Your task to perform on an android device: Search for pizza restaurants on Maps Image 0: 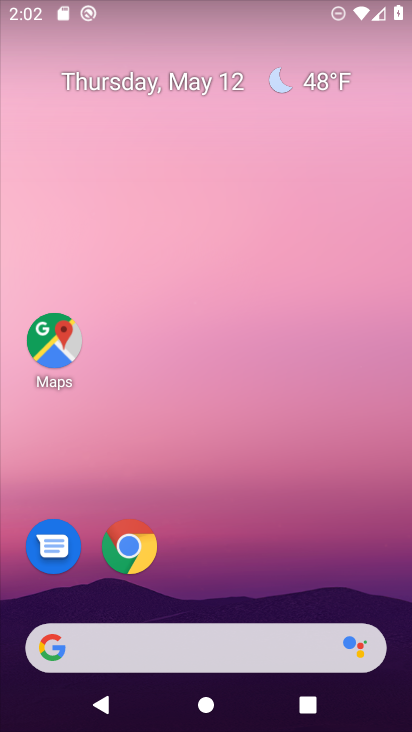
Step 0: drag from (325, 676) to (269, 167)
Your task to perform on an android device: Search for pizza restaurants on Maps Image 1: 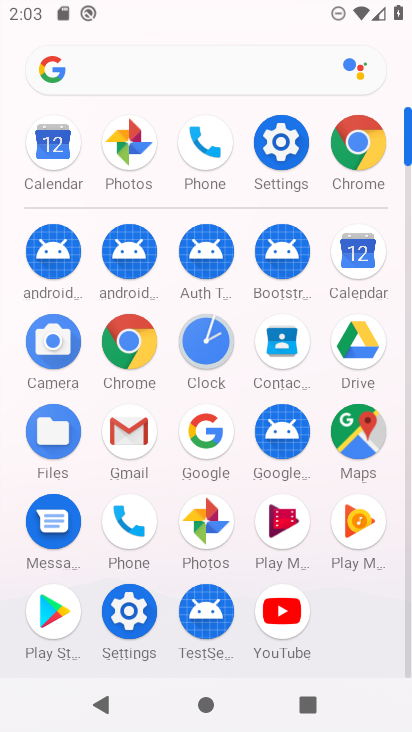
Step 1: click (381, 439)
Your task to perform on an android device: Search for pizza restaurants on Maps Image 2: 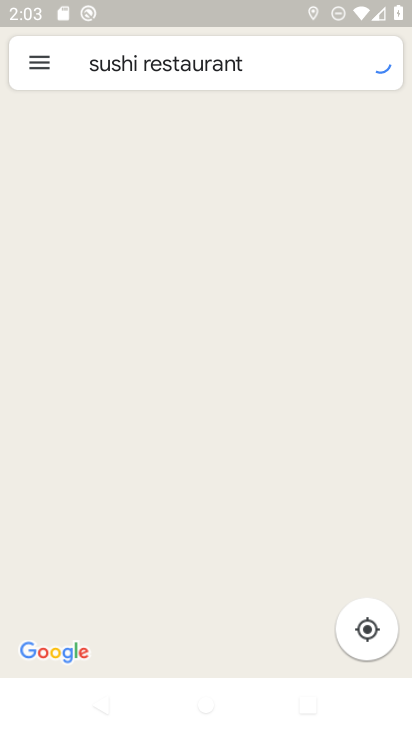
Step 2: click (308, 79)
Your task to perform on an android device: Search for pizza restaurants on Maps Image 3: 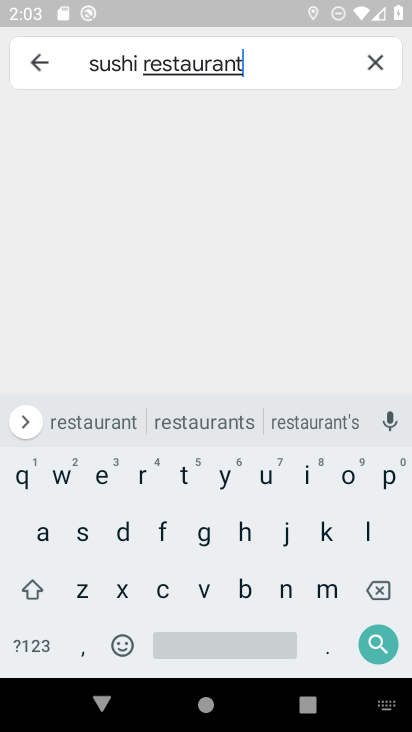
Step 3: click (374, 64)
Your task to perform on an android device: Search for pizza restaurants on Maps Image 4: 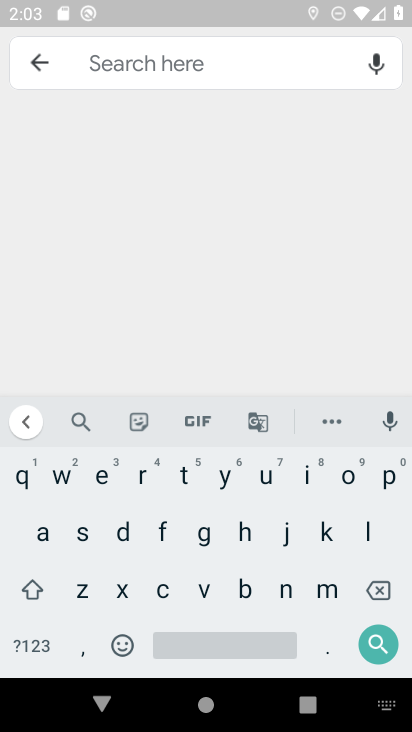
Step 4: click (36, 63)
Your task to perform on an android device: Search for pizza restaurants on Maps Image 5: 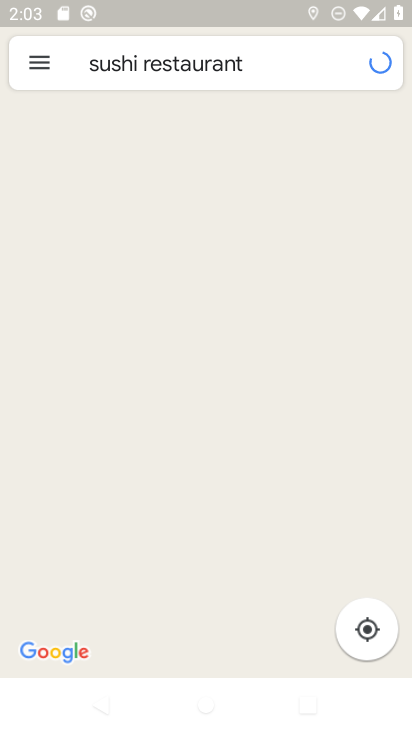
Step 5: click (46, 62)
Your task to perform on an android device: Search for pizza restaurants on Maps Image 6: 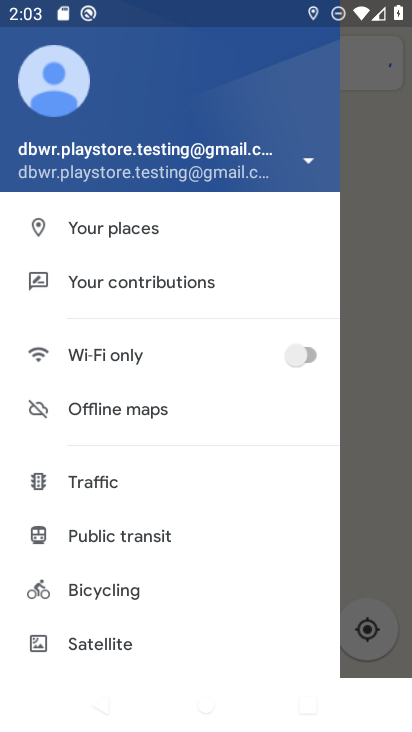
Step 6: click (376, 317)
Your task to perform on an android device: Search for pizza restaurants on Maps Image 7: 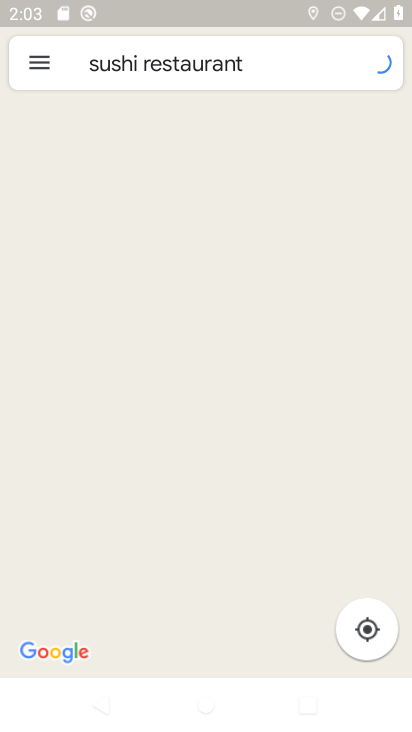
Step 7: click (230, 68)
Your task to perform on an android device: Search for pizza restaurants on Maps Image 8: 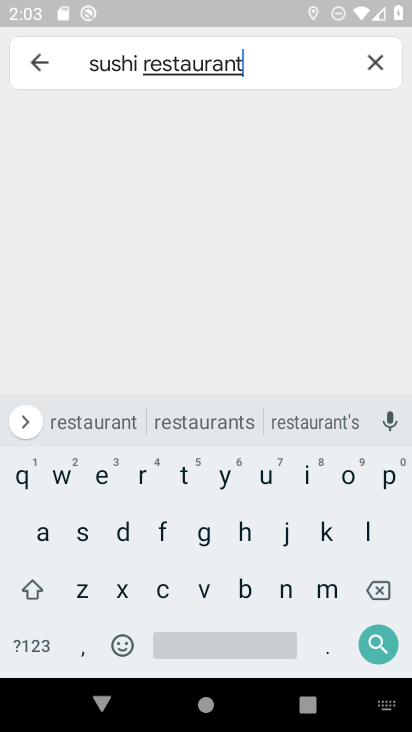
Step 8: click (372, 54)
Your task to perform on an android device: Search for pizza restaurants on Maps Image 9: 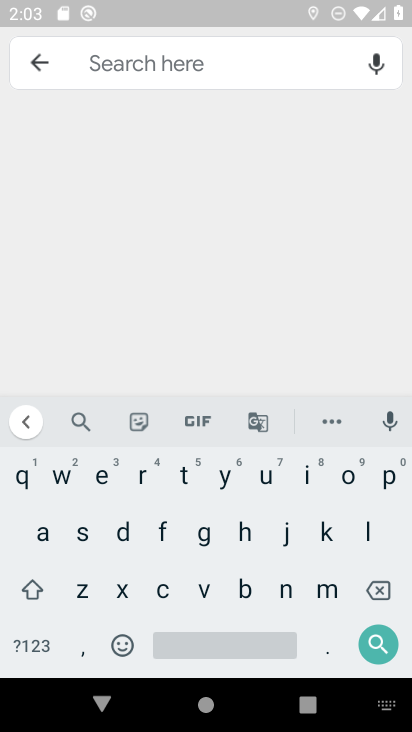
Step 9: click (386, 484)
Your task to perform on an android device: Search for pizza restaurants on Maps Image 10: 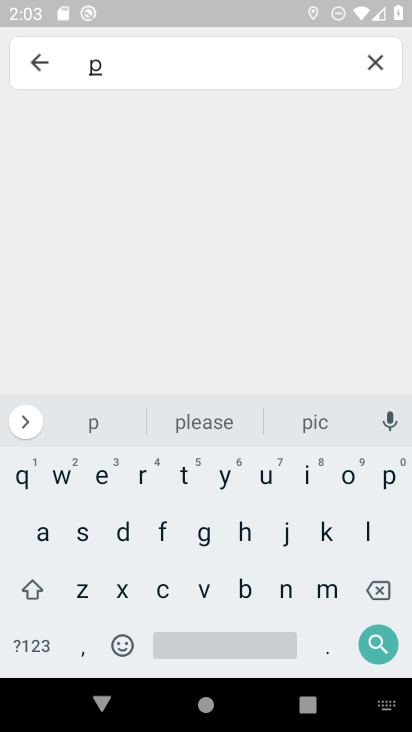
Step 10: click (307, 475)
Your task to perform on an android device: Search for pizza restaurants on Maps Image 11: 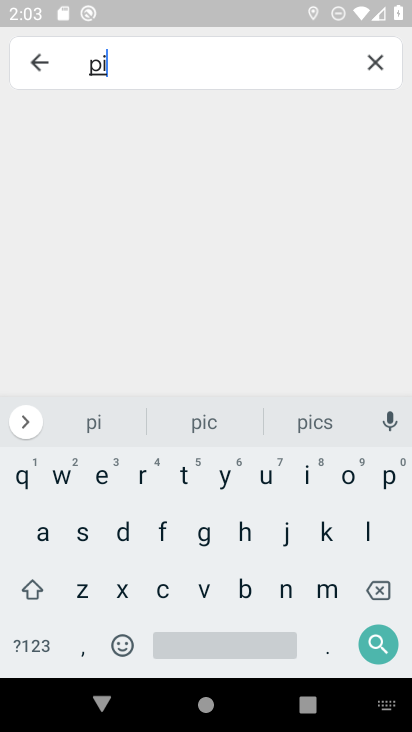
Step 11: click (80, 585)
Your task to perform on an android device: Search for pizza restaurants on Maps Image 12: 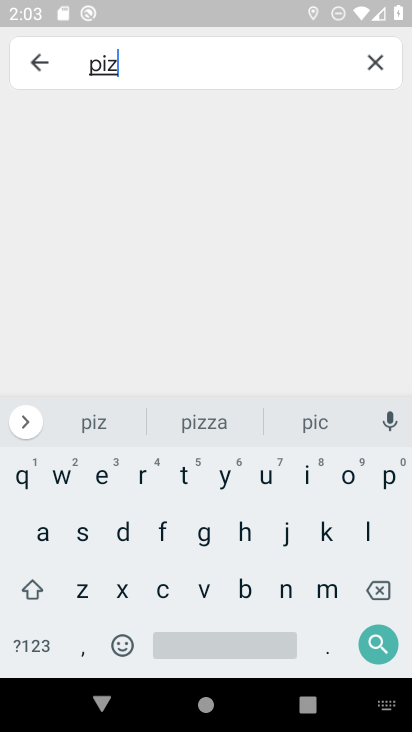
Step 12: click (43, 531)
Your task to perform on an android device: Search for pizza restaurants on Maps Image 13: 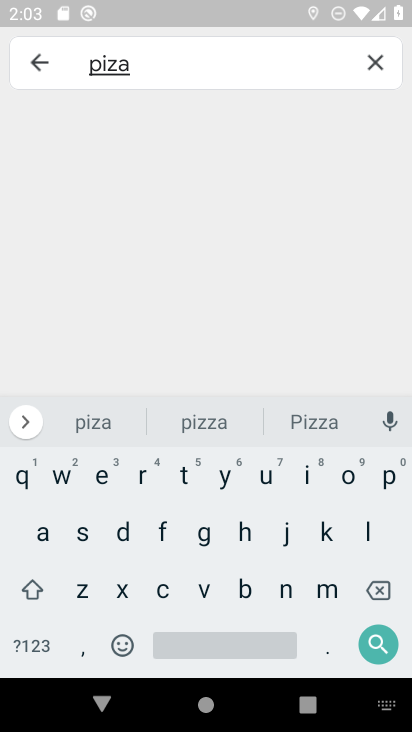
Step 13: click (378, 586)
Your task to perform on an android device: Search for pizza restaurants on Maps Image 14: 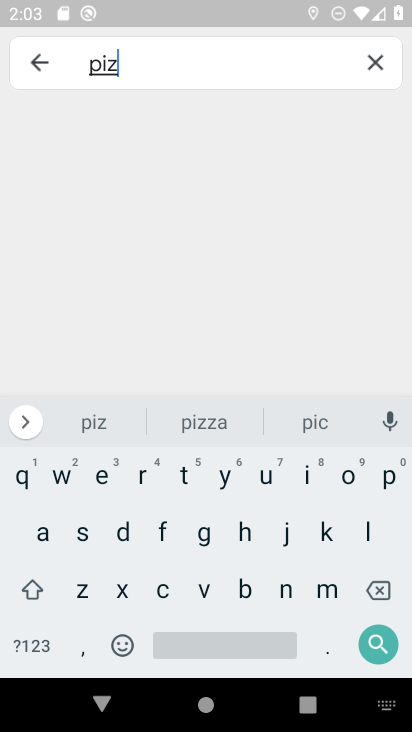
Step 14: click (211, 412)
Your task to perform on an android device: Search for pizza restaurants on Maps Image 15: 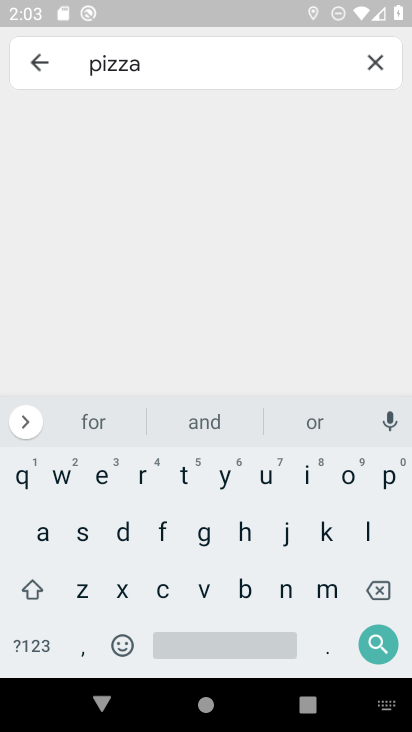
Step 15: click (142, 475)
Your task to perform on an android device: Search for pizza restaurants on Maps Image 16: 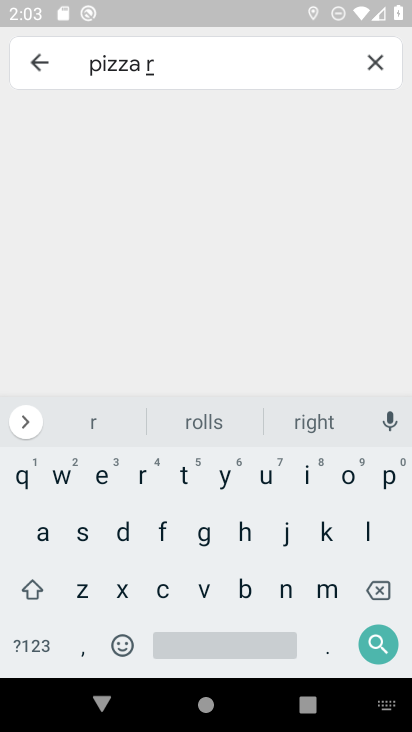
Step 16: click (101, 475)
Your task to perform on an android device: Search for pizza restaurants on Maps Image 17: 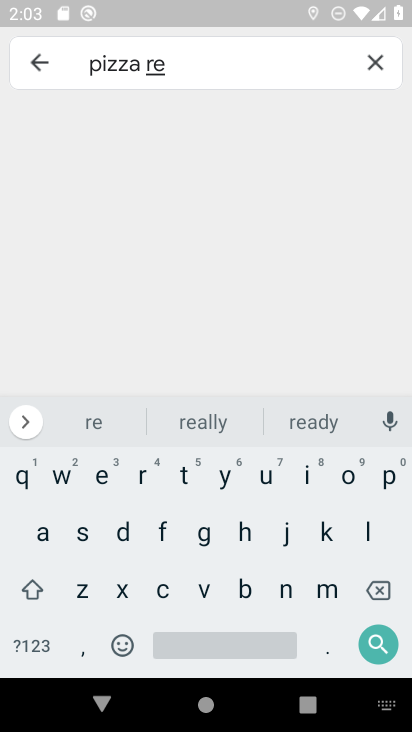
Step 17: click (82, 535)
Your task to perform on an android device: Search for pizza restaurants on Maps Image 18: 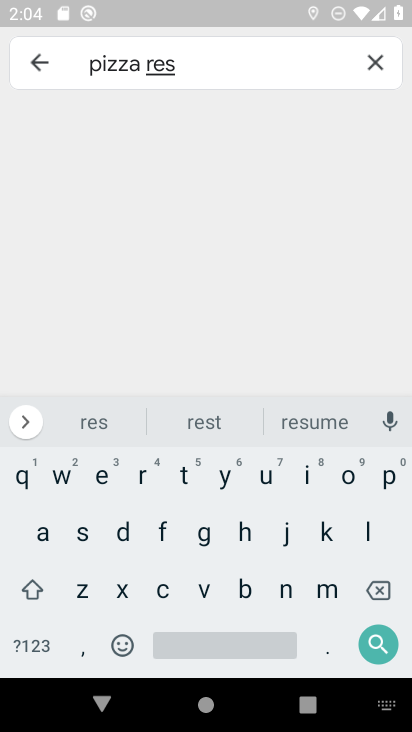
Step 18: click (174, 475)
Your task to perform on an android device: Search for pizza restaurants on Maps Image 19: 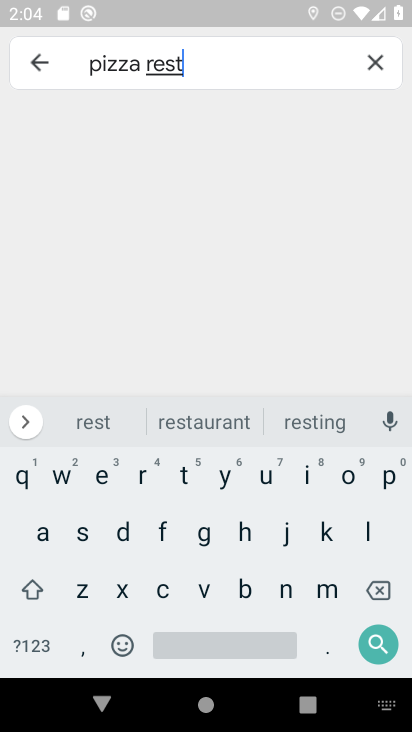
Step 19: click (206, 415)
Your task to perform on an android device: Search for pizza restaurants on Maps Image 20: 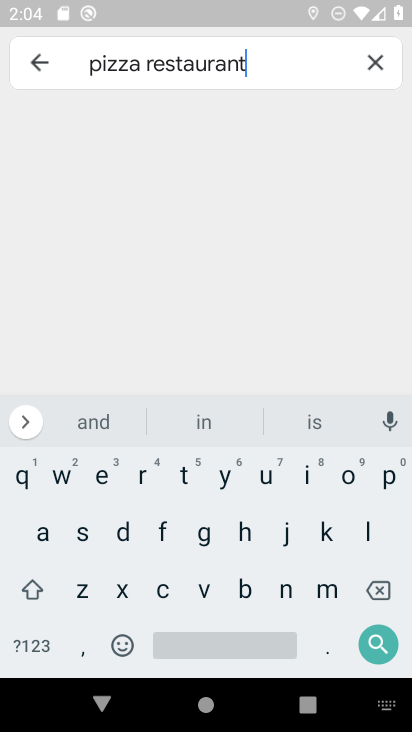
Step 20: click (378, 641)
Your task to perform on an android device: Search for pizza restaurants on Maps Image 21: 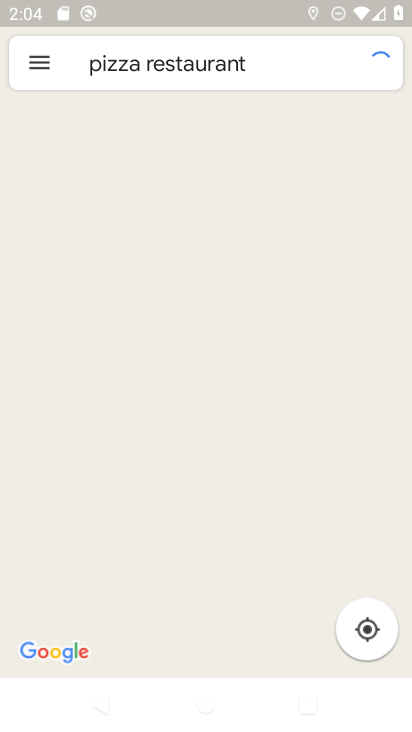
Step 21: task complete